Your task to perform on an android device: turn notification dots on Image 0: 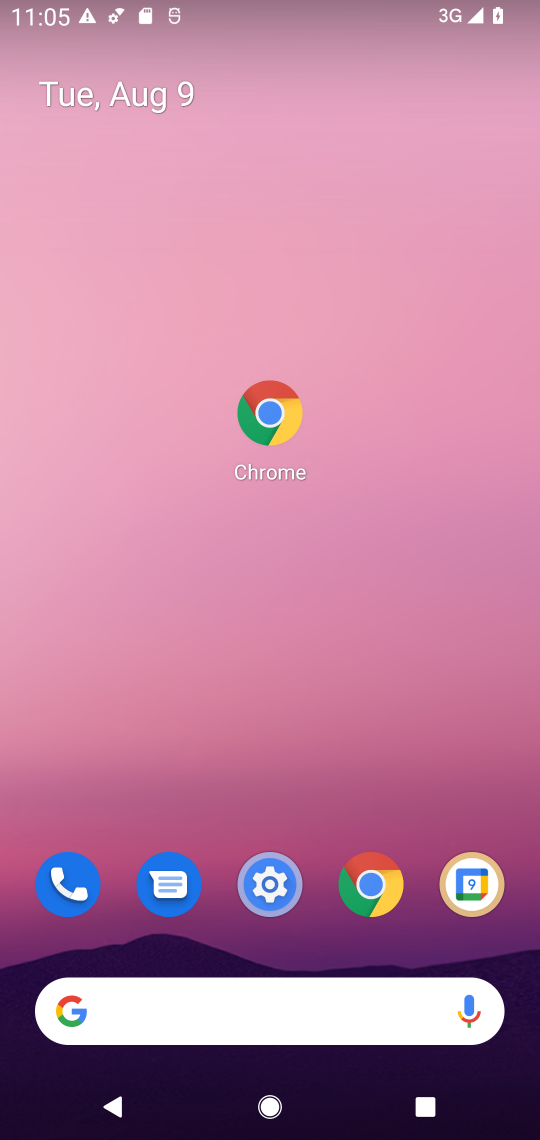
Step 0: drag from (340, 1052) to (94, 35)
Your task to perform on an android device: turn notification dots on Image 1: 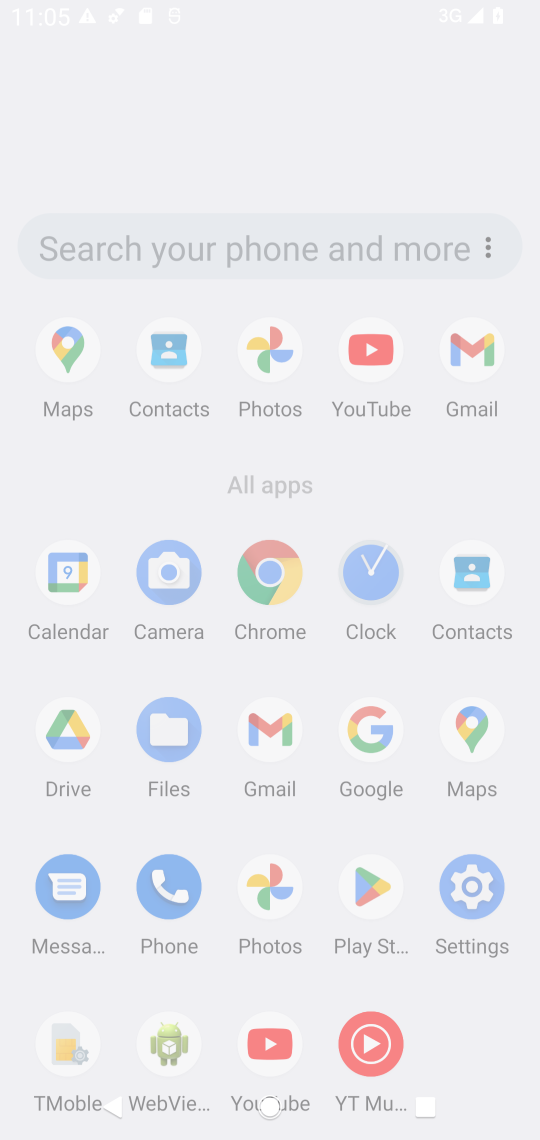
Step 1: drag from (150, 865) to (50, 91)
Your task to perform on an android device: turn notification dots on Image 2: 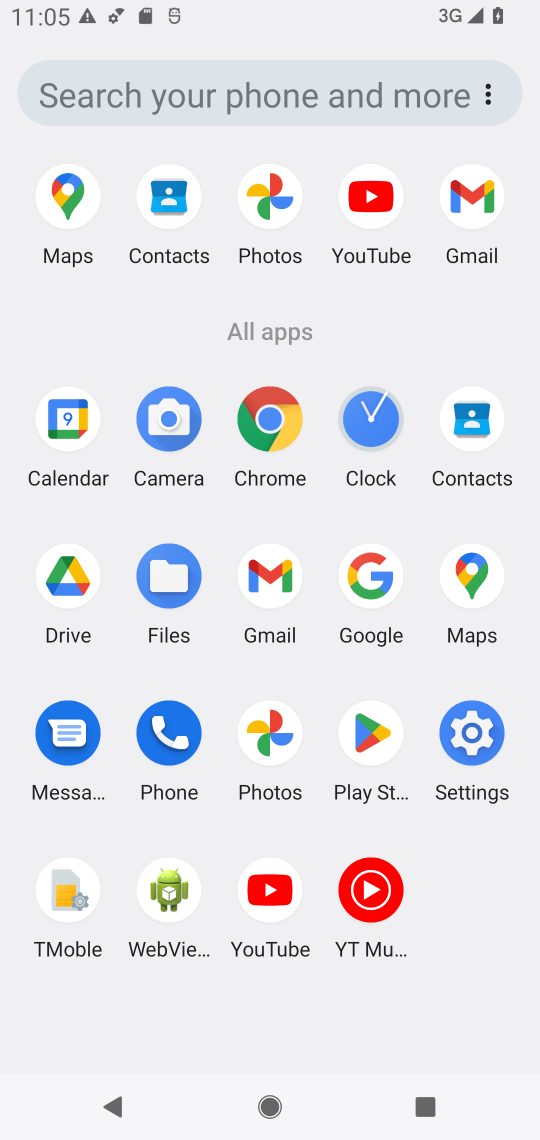
Step 2: drag from (326, 843) to (244, 92)
Your task to perform on an android device: turn notification dots on Image 3: 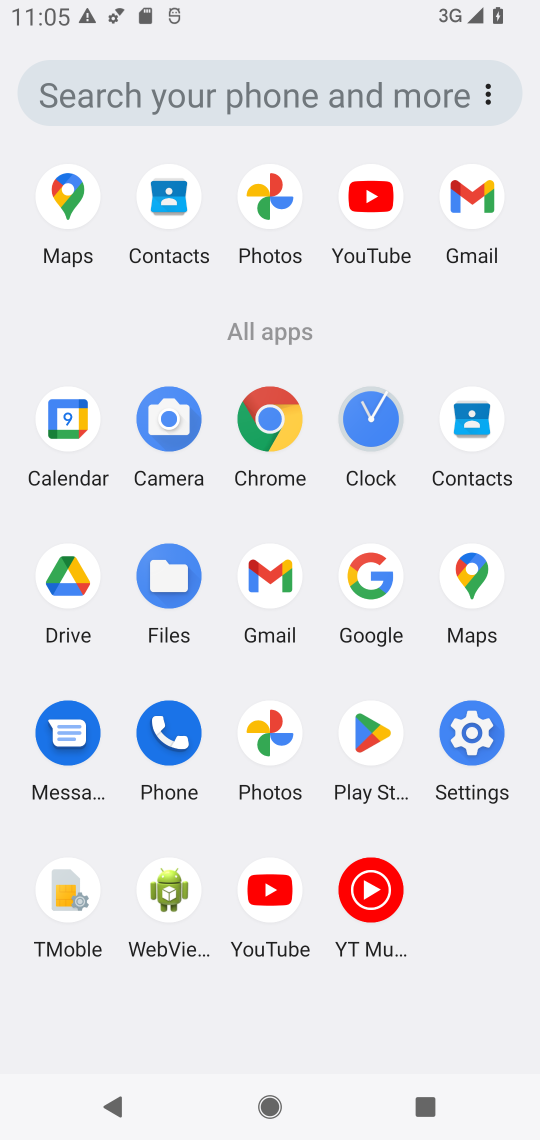
Step 3: click (471, 725)
Your task to perform on an android device: turn notification dots on Image 4: 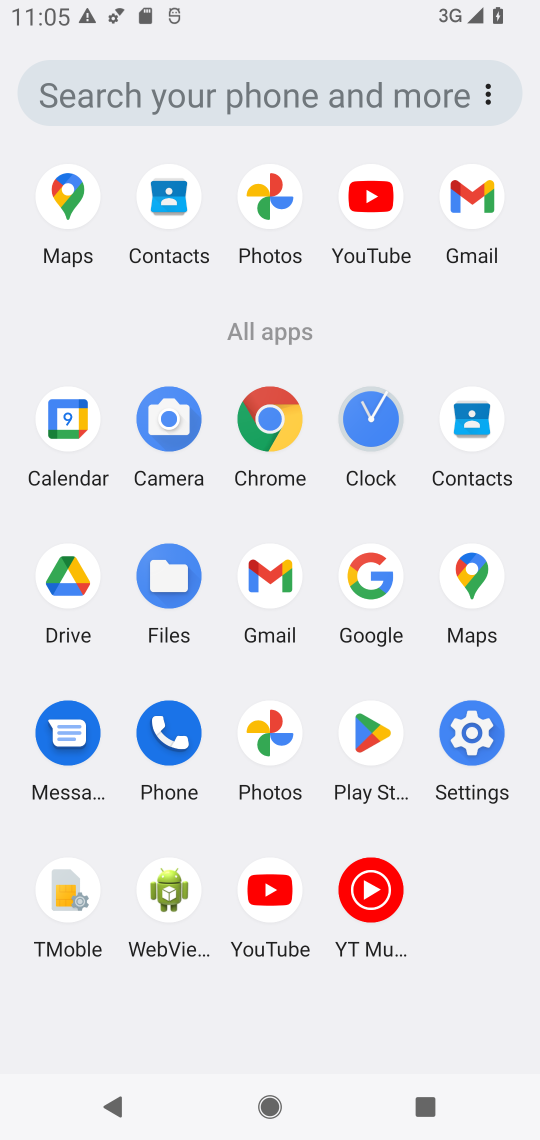
Step 4: click (470, 731)
Your task to perform on an android device: turn notification dots on Image 5: 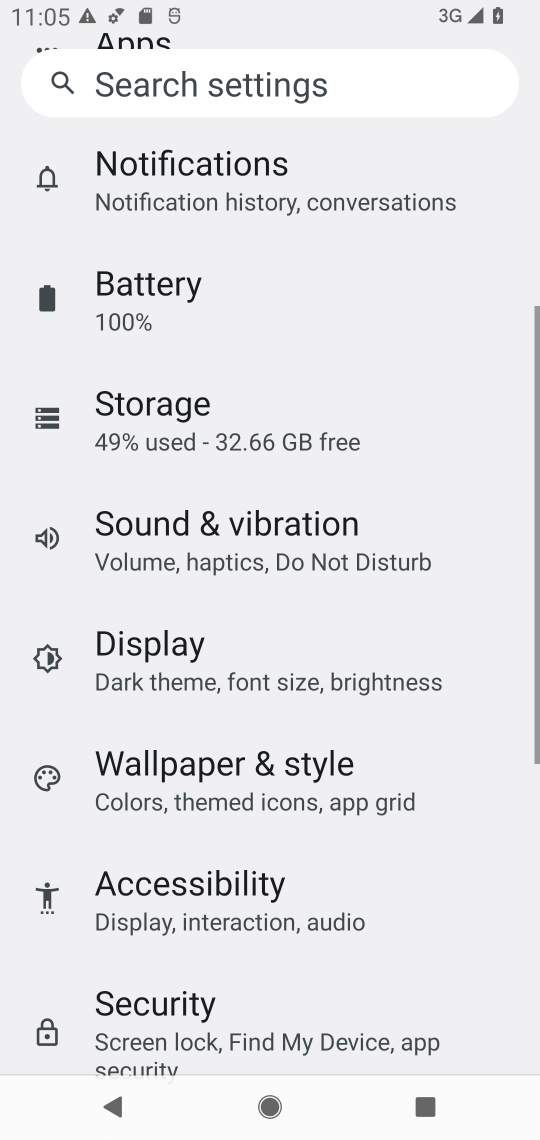
Step 5: click (473, 738)
Your task to perform on an android device: turn notification dots on Image 6: 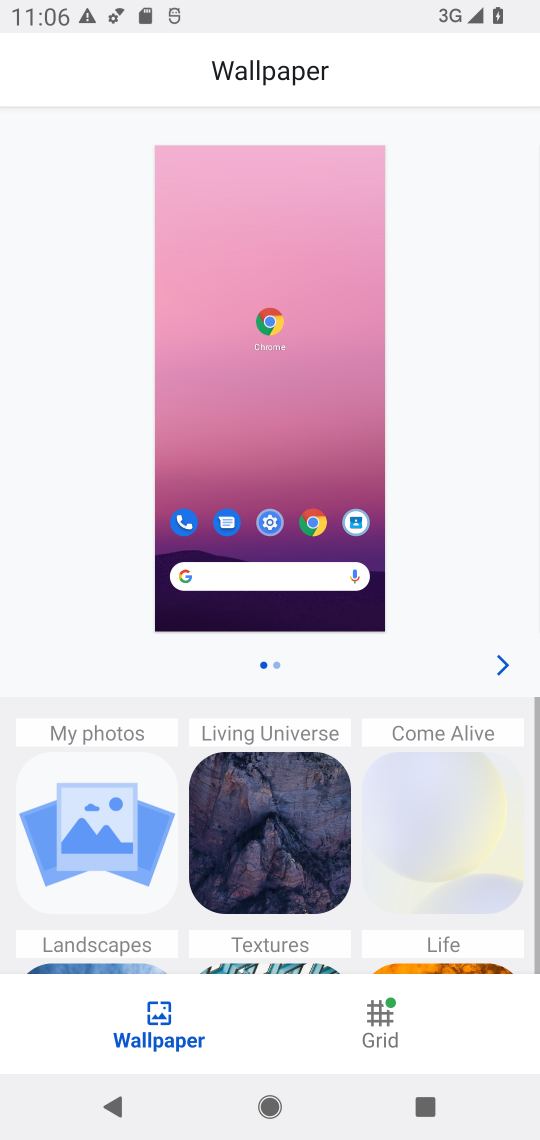
Step 6: press back button
Your task to perform on an android device: turn notification dots on Image 7: 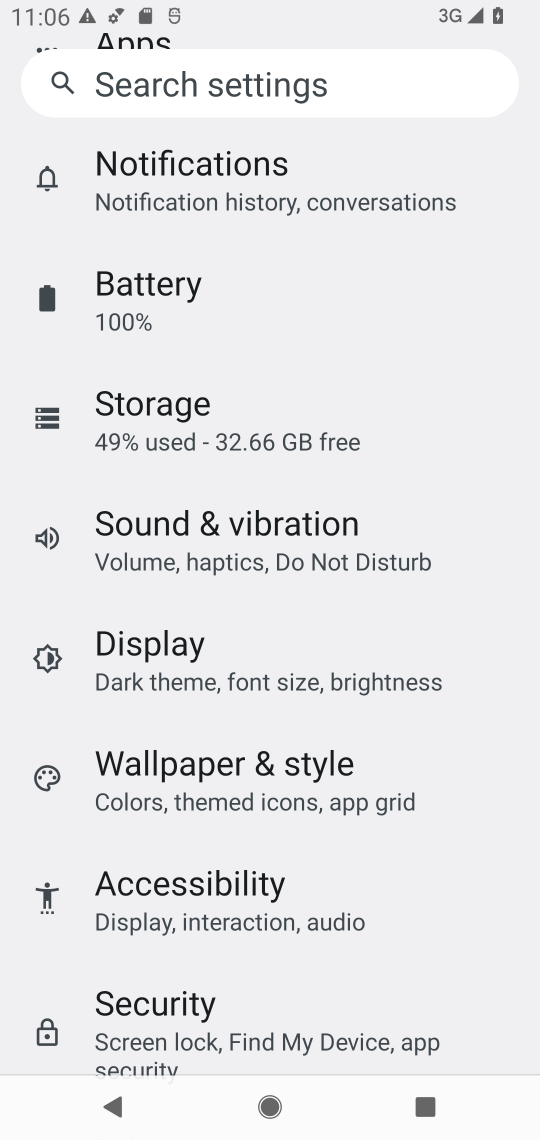
Step 7: click (191, 227)
Your task to perform on an android device: turn notification dots on Image 8: 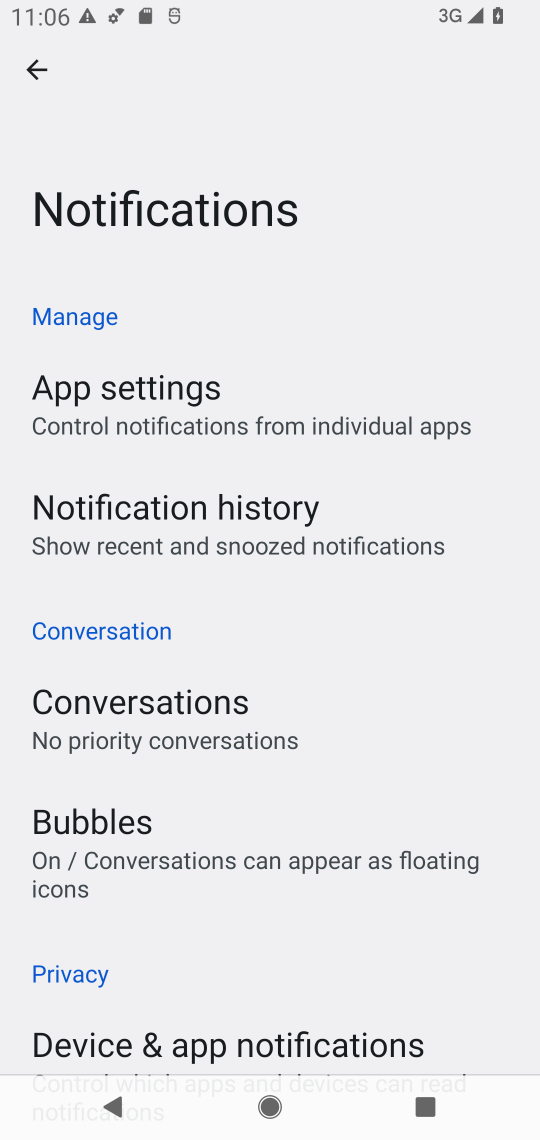
Step 8: task complete